Your task to perform on an android device: Look up the best rated 3d printer on Ali Express Image 0: 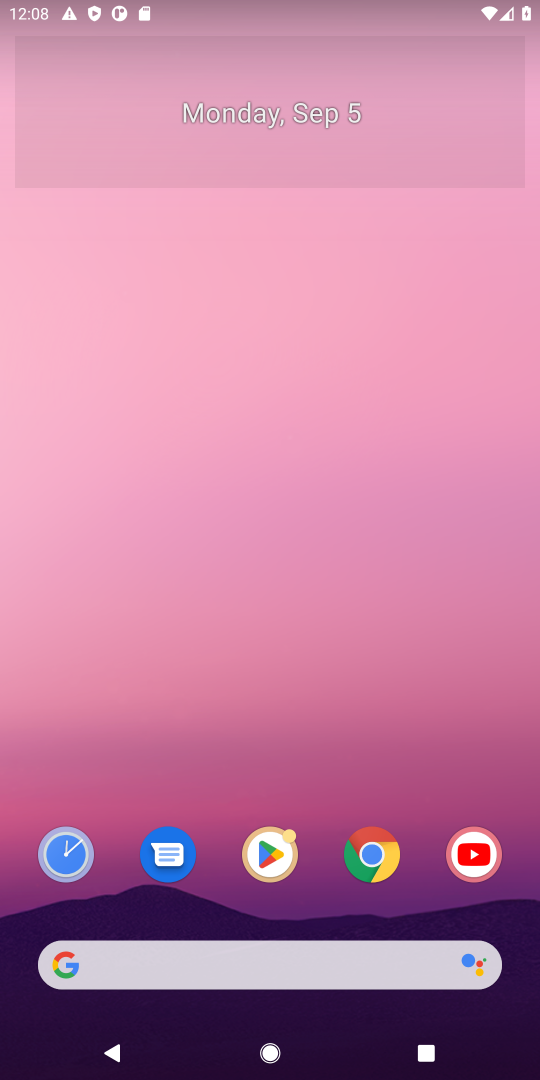
Step 0: press home button
Your task to perform on an android device: Look up the best rated 3d printer on Ali Express Image 1: 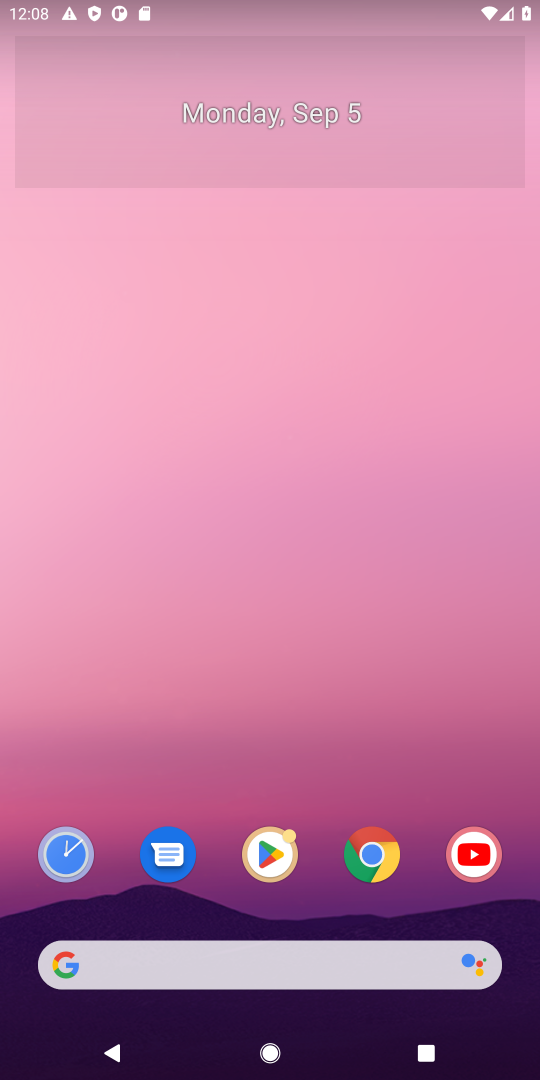
Step 1: click (346, 966)
Your task to perform on an android device: Look up the best rated 3d printer on Ali Express Image 2: 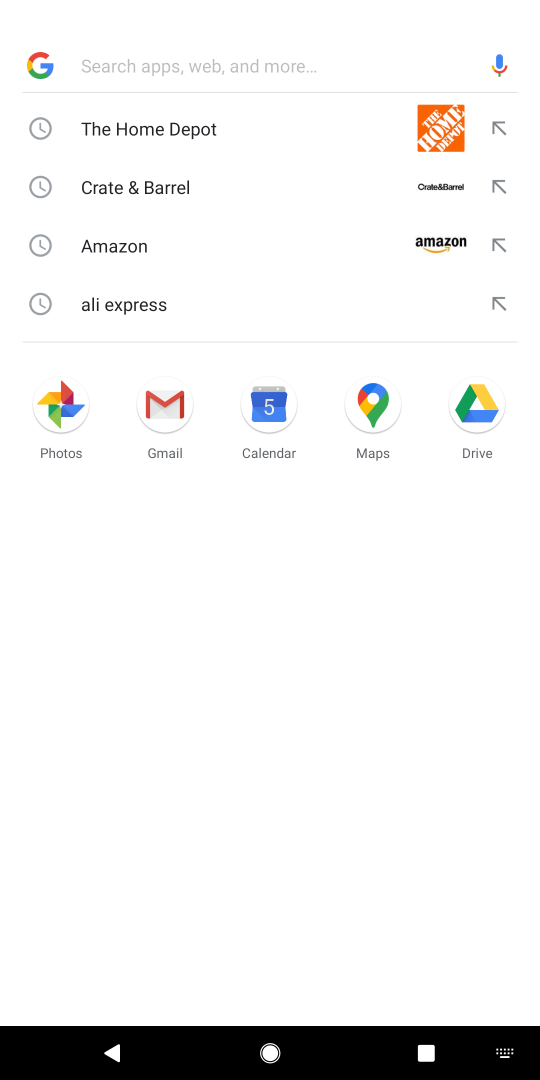
Step 2: type "ali express"
Your task to perform on an android device: Look up the best rated 3d printer on Ali Express Image 3: 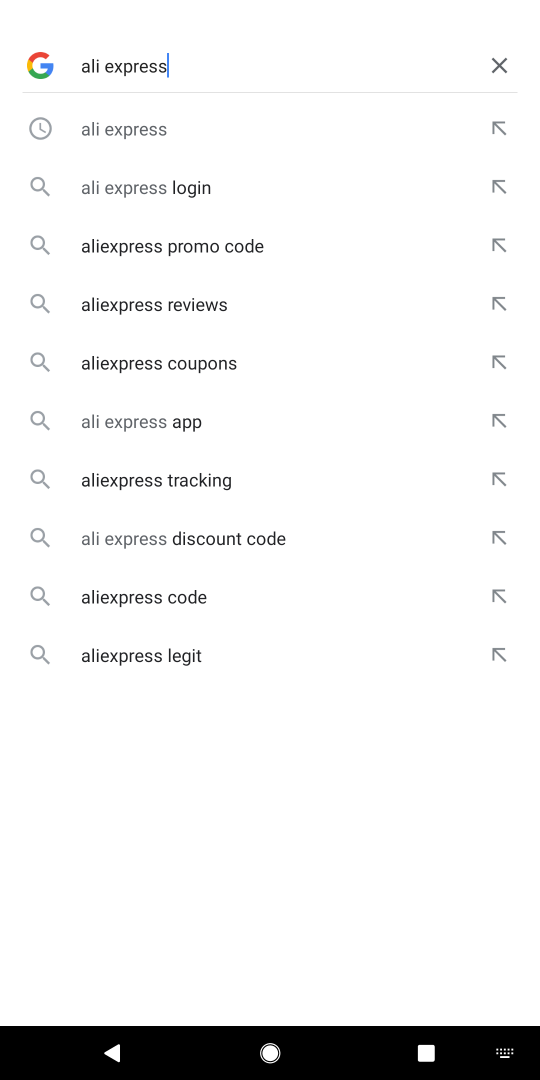
Step 3: press enter
Your task to perform on an android device: Look up the best rated 3d printer on Ali Express Image 4: 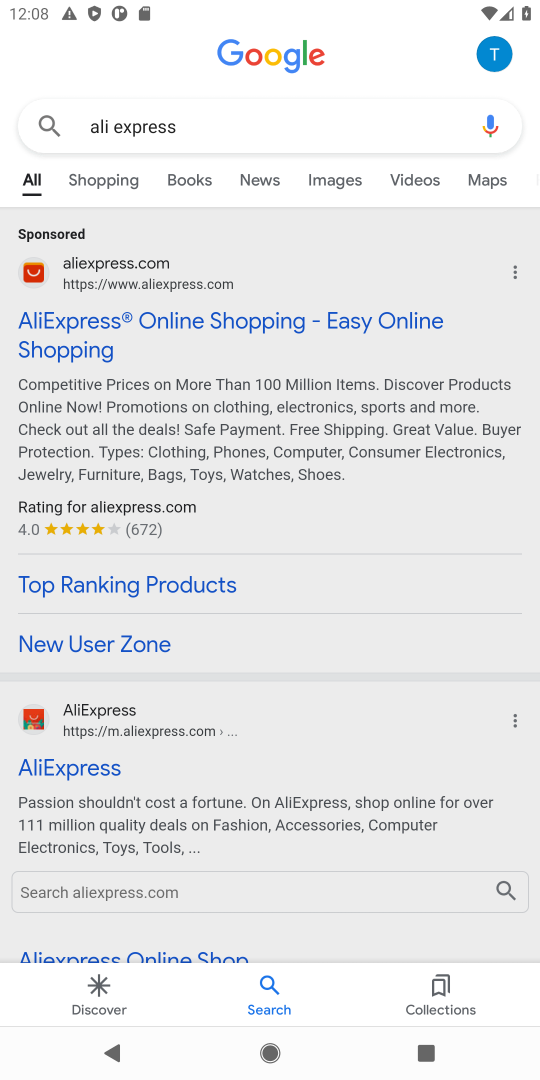
Step 4: click (103, 323)
Your task to perform on an android device: Look up the best rated 3d printer on Ali Express Image 5: 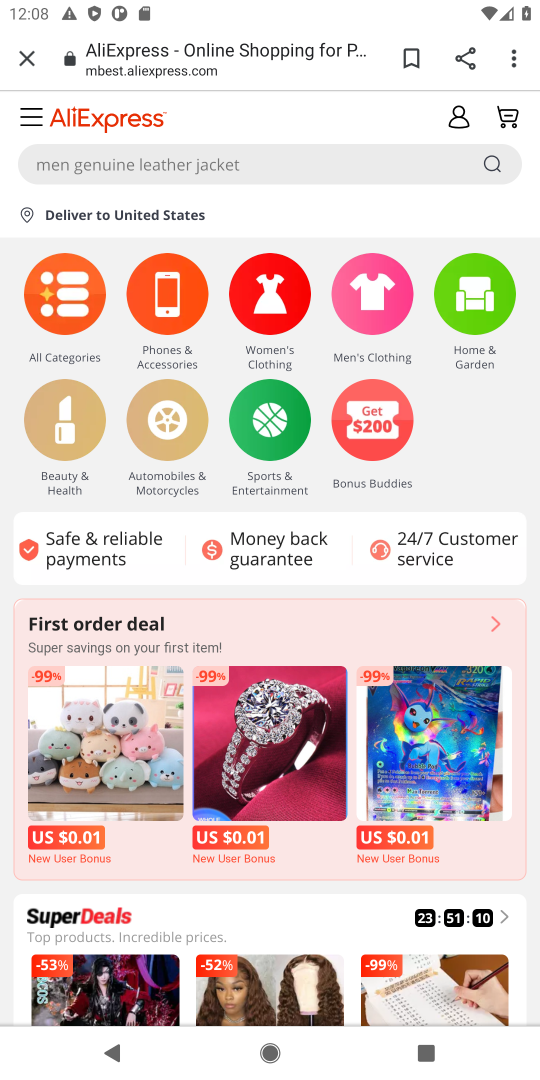
Step 5: click (92, 161)
Your task to perform on an android device: Look up the best rated 3d printer on Ali Express Image 6: 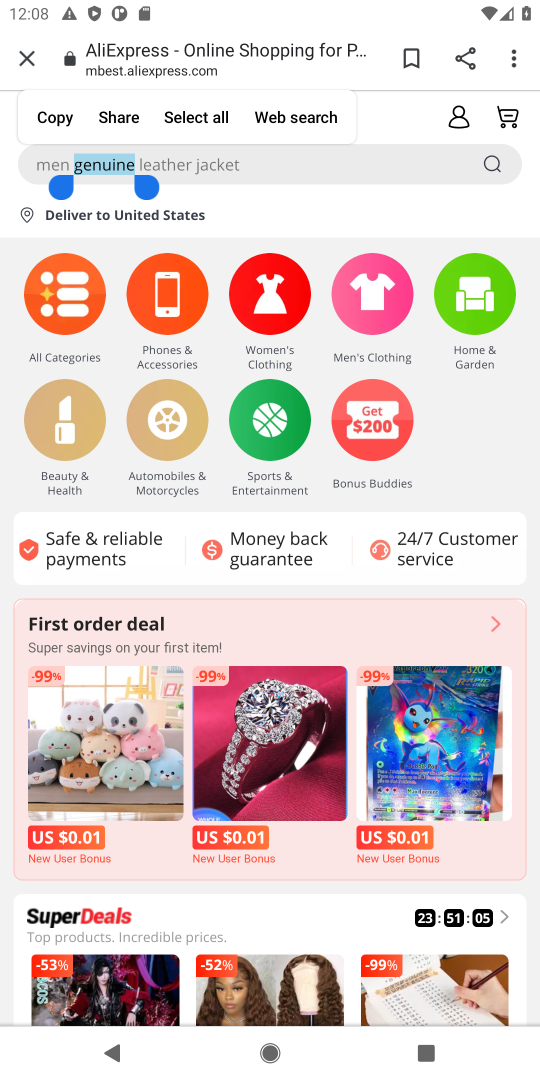
Step 6: click (473, 202)
Your task to perform on an android device: Look up the best rated 3d printer on Ali Express Image 7: 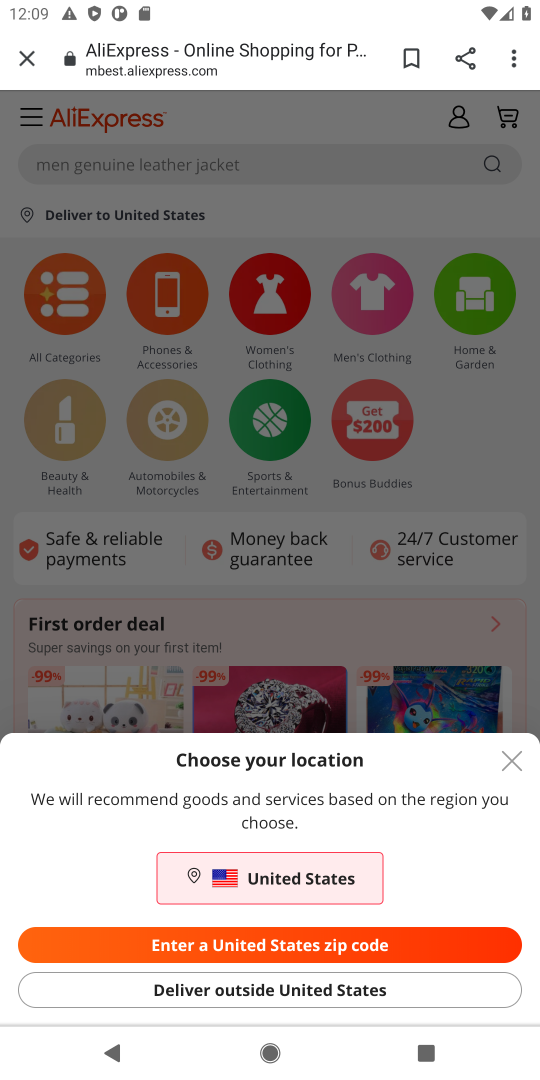
Step 7: click (500, 756)
Your task to perform on an android device: Look up the best rated 3d printer on Ali Express Image 8: 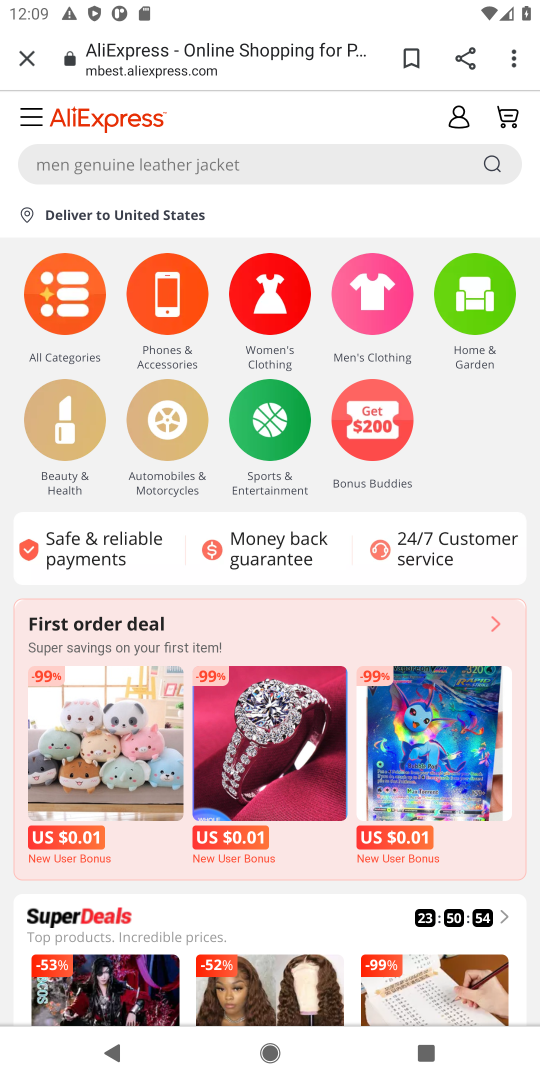
Step 8: click (78, 158)
Your task to perform on an android device: Look up the best rated 3d printer on Ali Express Image 9: 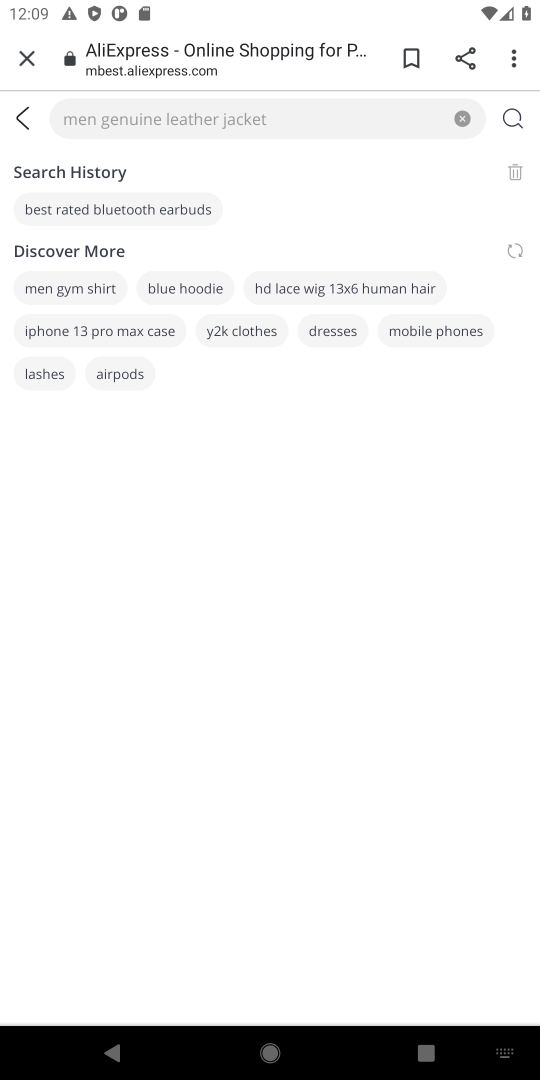
Step 9: type "best rated 3d printer "
Your task to perform on an android device: Look up the best rated 3d printer on Ali Express Image 10: 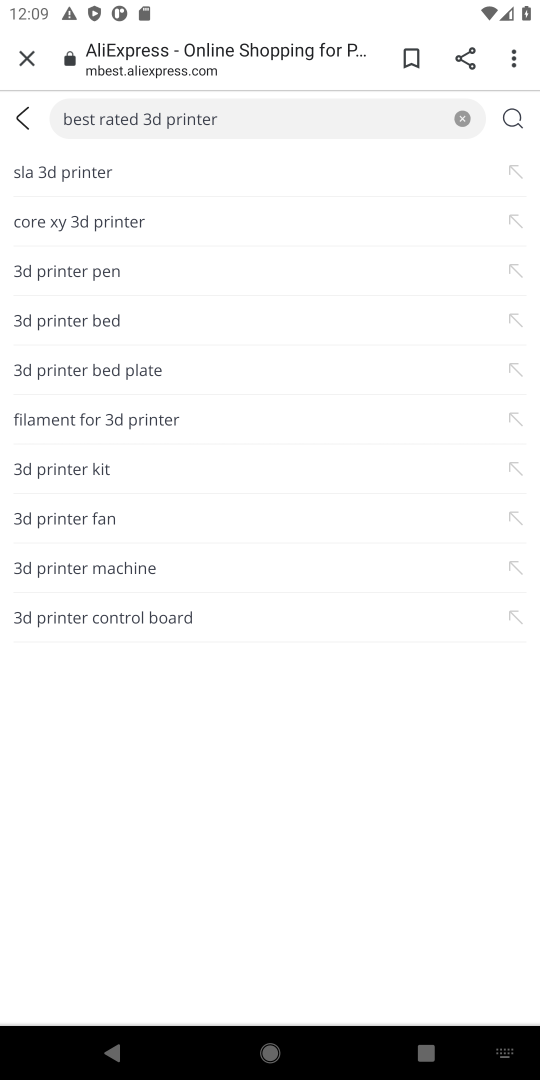
Step 10: click (514, 107)
Your task to perform on an android device: Look up the best rated 3d printer on Ali Express Image 11: 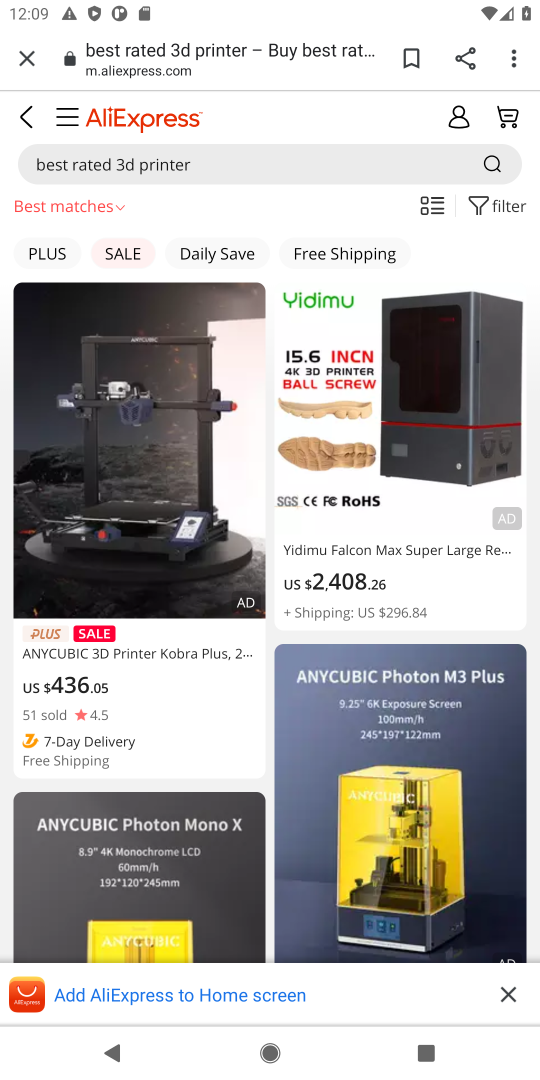
Step 11: task complete